Your task to perform on an android device: uninstall "LiveIn - Share Your Moment" Image 0: 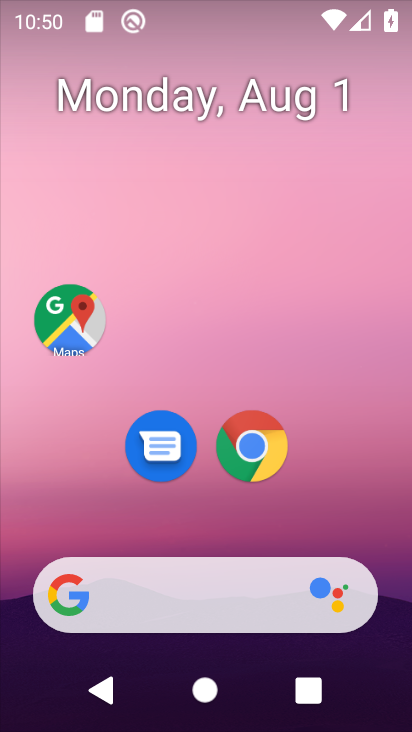
Step 0: drag from (194, 523) to (234, 111)
Your task to perform on an android device: uninstall "LiveIn - Share Your Moment" Image 1: 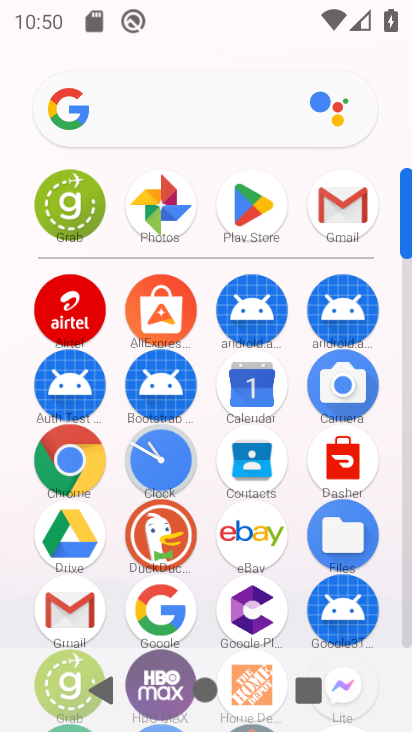
Step 1: click (260, 198)
Your task to perform on an android device: uninstall "LiveIn - Share Your Moment" Image 2: 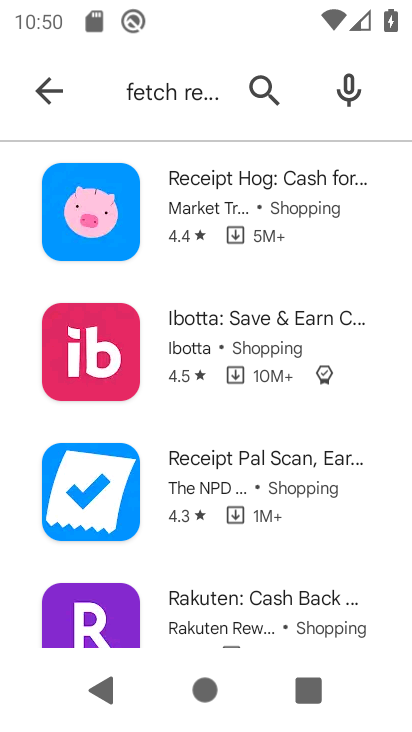
Step 2: click (263, 91)
Your task to perform on an android device: uninstall "LiveIn - Share Your Moment" Image 3: 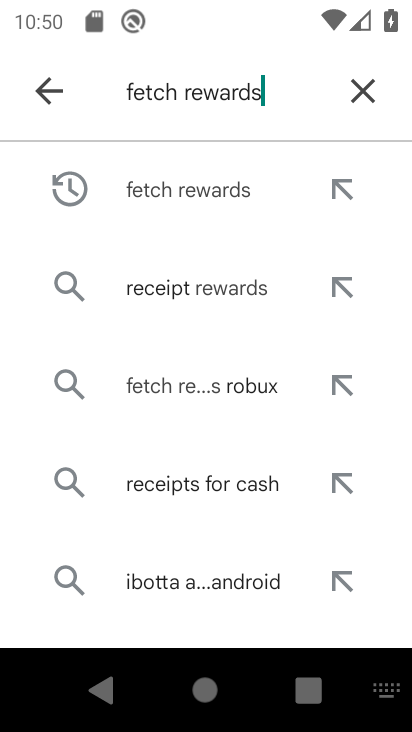
Step 3: click (365, 91)
Your task to perform on an android device: uninstall "LiveIn - Share Your Moment" Image 4: 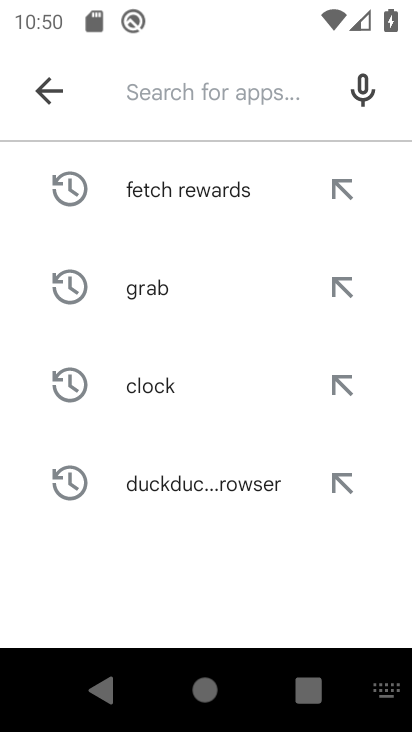
Step 4: type "LiveIn - Share Your Moment"
Your task to perform on an android device: uninstall "LiveIn - Share Your Moment" Image 5: 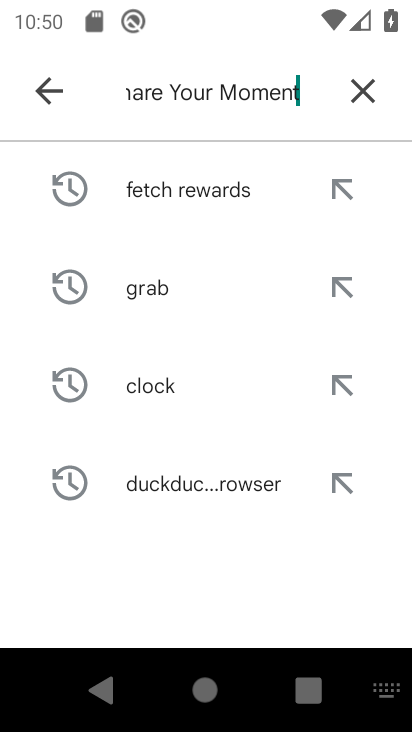
Step 5: type ""
Your task to perform on an android device: uninstall "LiveIn - Share Your Moment" Image 6: 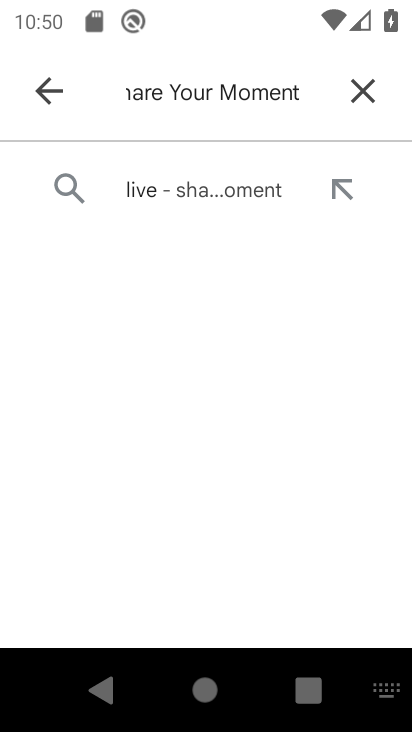
Step 6: click (277, 180)
Your task to perform on an android device: uninstall "LiveIn - Share Your Moment" Image 7: 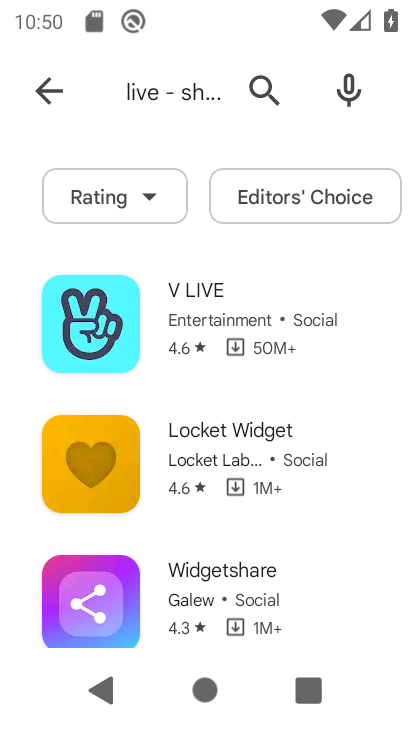
Step 7: task complete